Your task to perform on an android device: star an email in the gmail app Image 0: 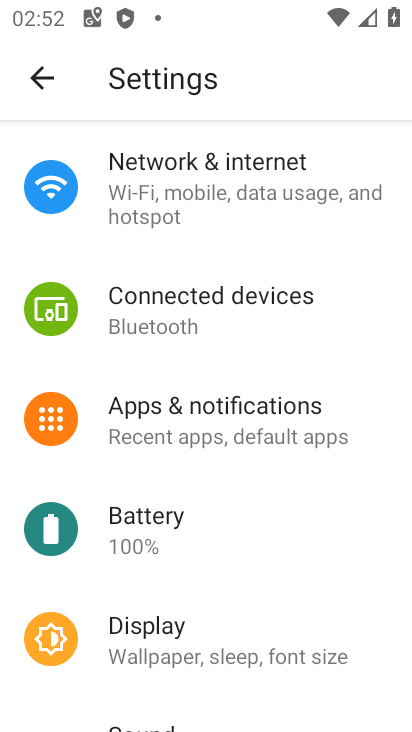
Step 0: press home button
Your task to perform on an android device: star an email in the gmail app Image 1: 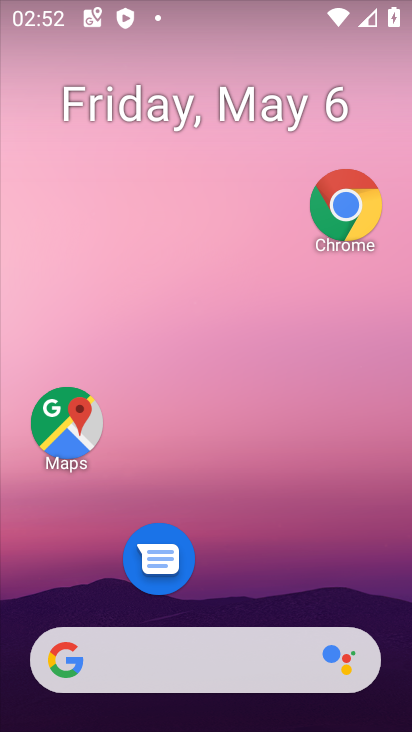
Step 1: drag from (204, 654) to (307, 30)
Your task to perform on an android device: star an email in the gmail app Image 2: 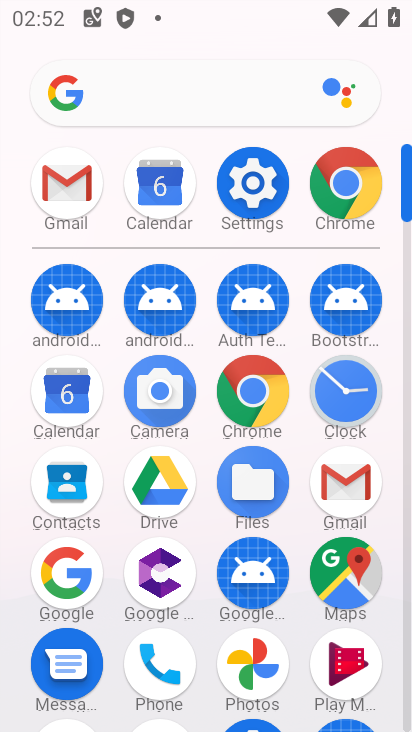
Step 2: click (77, 207)
Your task to perform on an android device: star an email in the gmail app Image 3: 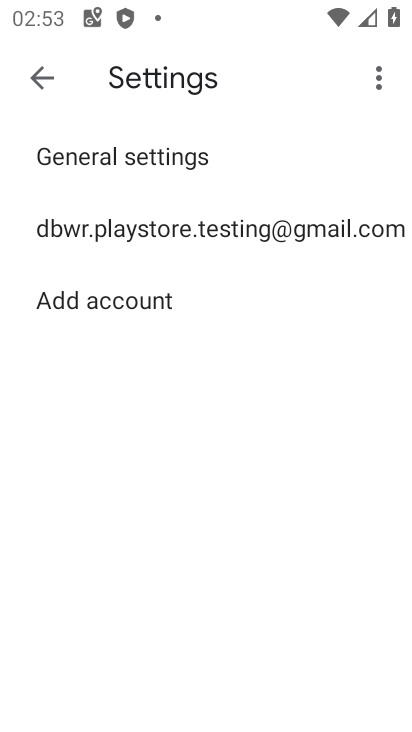
Step 3: click (126, 230)
Your task to perform on an android device: star an email in the gmail app Image 4: 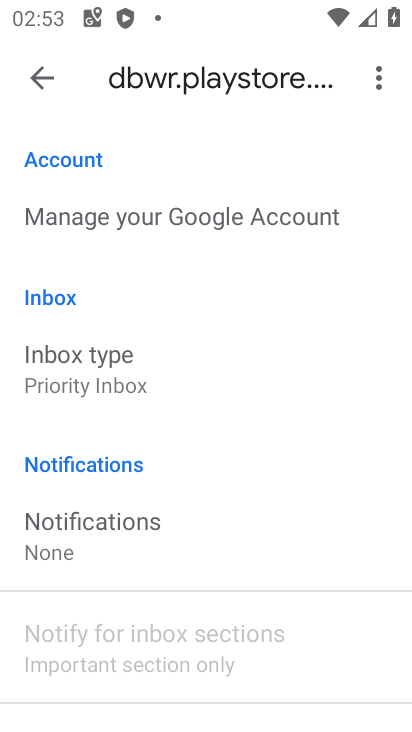
Step 4: click (46, 78)
Your task to perform on an android device: star an email in the gmail app Image 5: 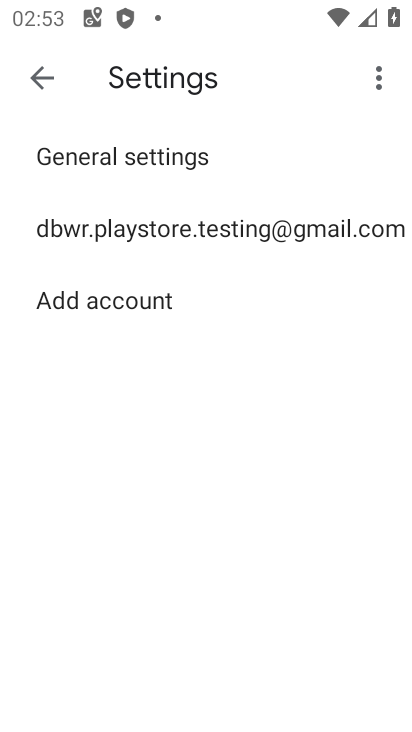
Step 5: click (32, 80)
Your task to perform on an android device: star an email in the gmail app Image 6: 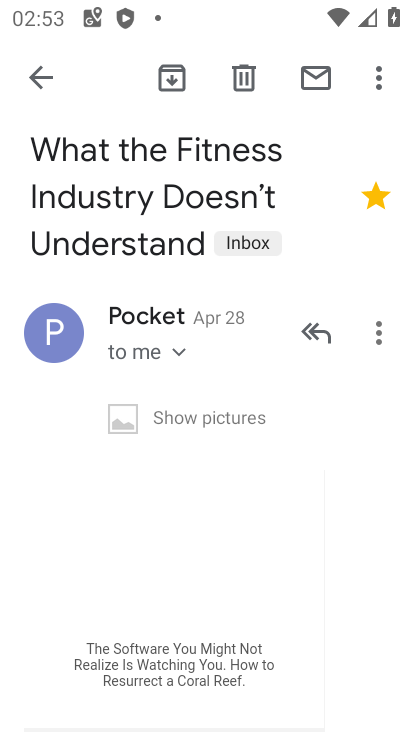
Step 6: click (32, 80)
Your task to perform on an android device: star an email in the gmail app Image 7: 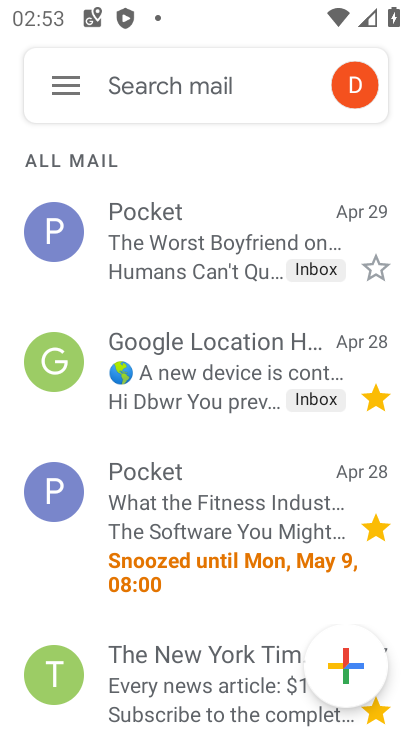
Step 7: click (69, 232)
Your task to perform on an android device: star an email in the gmail app Image 8: 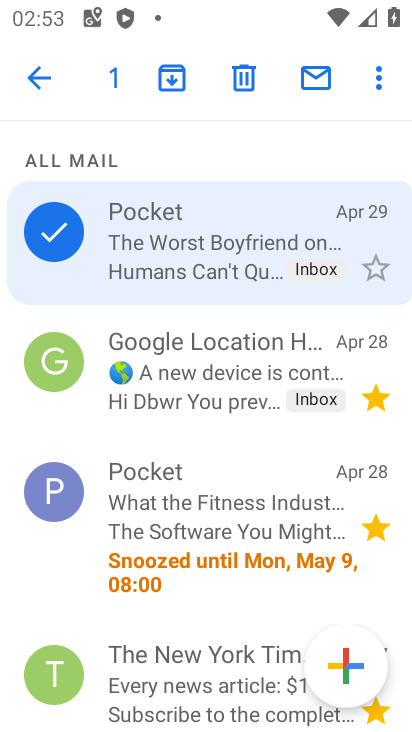
Step 8: click (377, 75)
Your task to perform on an android device: star an email in the gmail app Image 9: 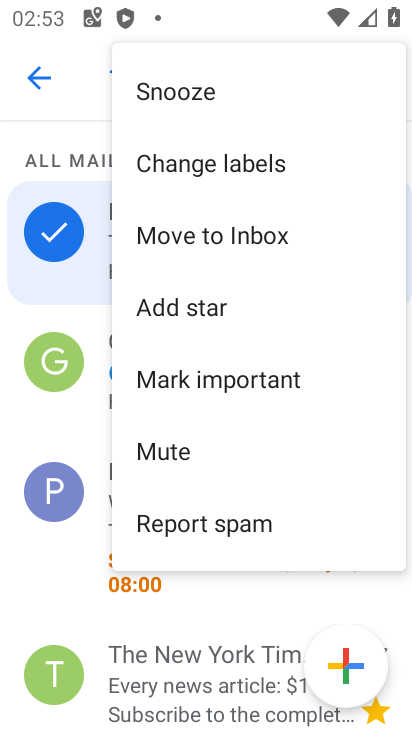
Step 9: click (214, 305)
Your task to perform on an android device: star an email in the gmail app Image 10: 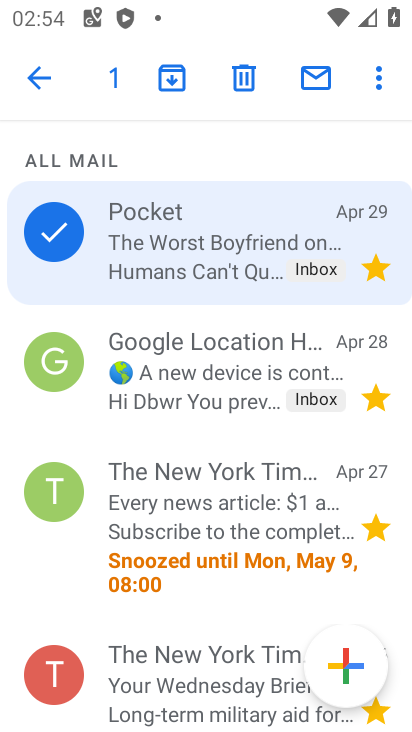
Step 10: task complete